Your task to perform on an android device: Open the Play Movies app and select the watchlist tab. Image 0: 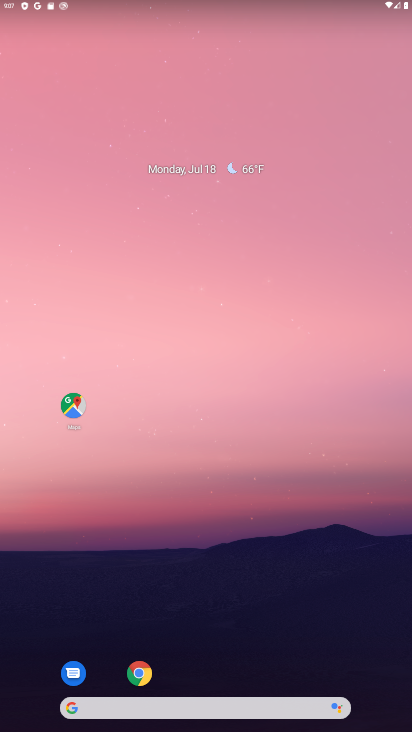
Step 0: drag from (198, 599) to (266, 142)
Your task to perform on an android device: Open the Play Movies app and select the watchlist tab. Image 1: 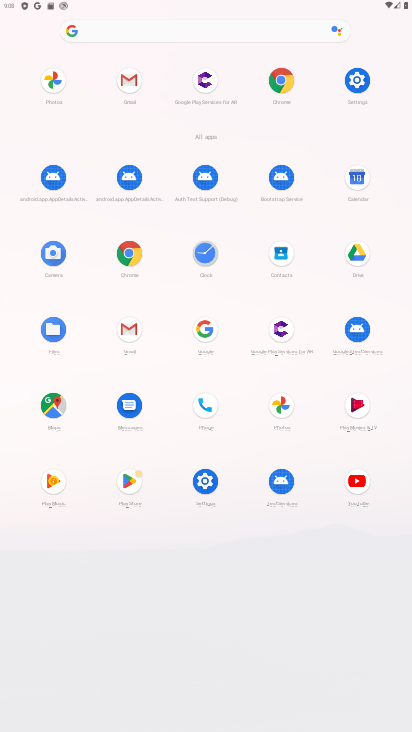
Step 1: click (357, 403)
Your task to perform on an android device: Open the Play Movies app and select the watchlist tab. Image 2: 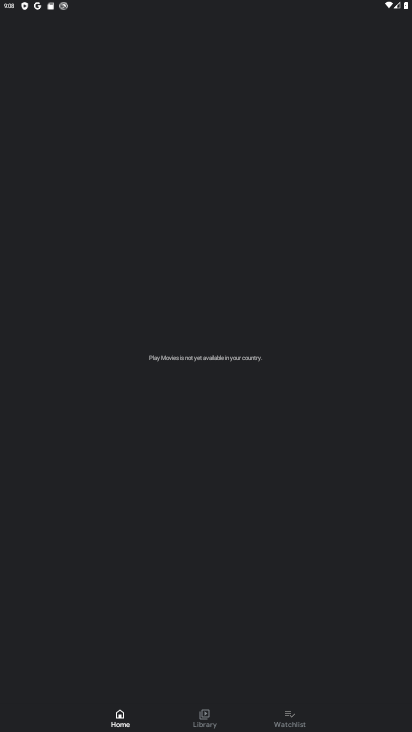
Step 2: click (288, 719)
Your task to perform on an android device: Open the Play Movies app and select the watchlist tab. Image 3: 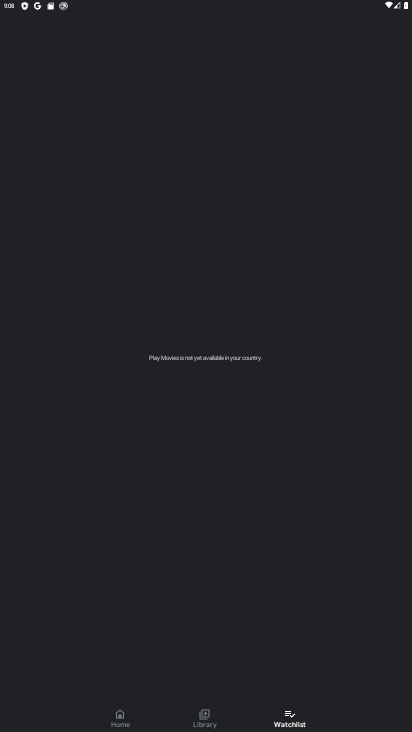
Step 3: task complete